Your task to perform on an android device: open device folders in google photos Image 0: 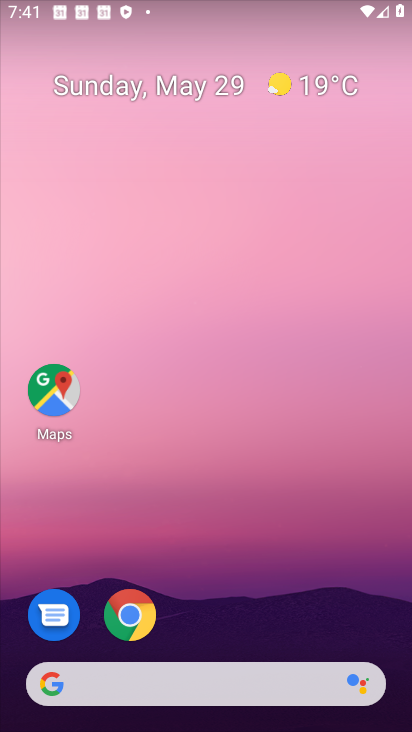
Step 0: drag from (134, 721) to (248, 0)
Your task to perform on an android device: open device folders in google photos Image 1: 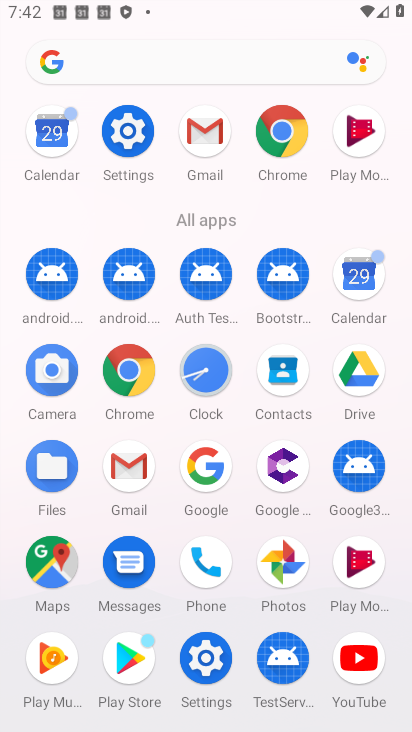
Step 1: click (292, 560)
Your task to perform on an android device: open device folders in google photos Image 2: 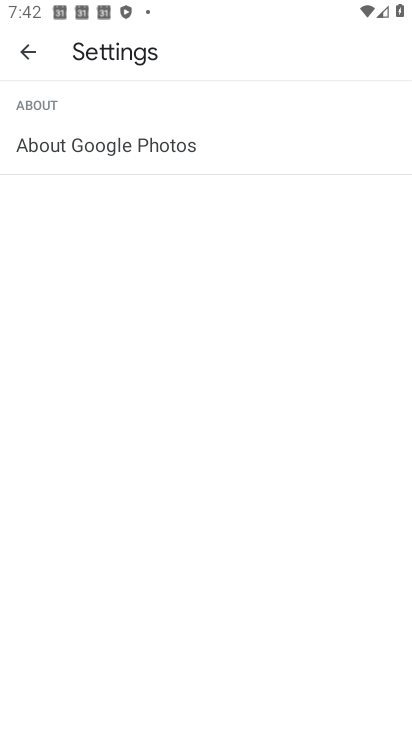
Step 2: click (30, 54)
Your task to perform on an android device: open device folders in google photos Image 3: 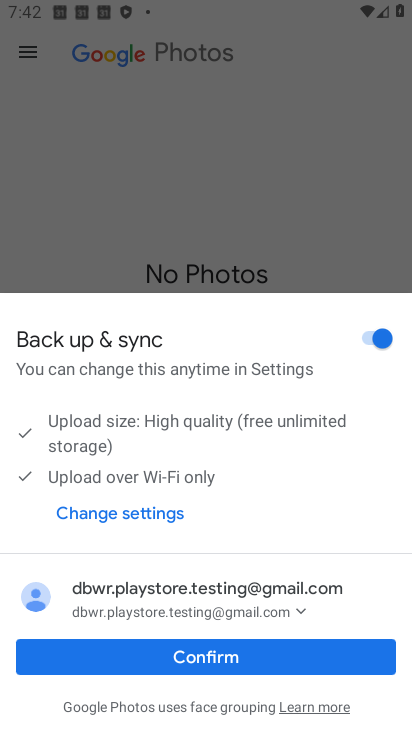
Step 3: click (210, 671)
Your task to perform on an android device: open device folders in google photos Image 4: 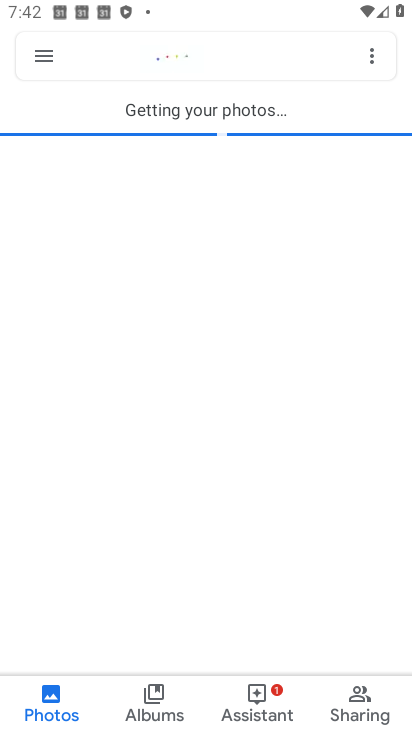
Step 4: click (45, 60)
Your task to perform on an android device: open device folders in google photos Image 5: 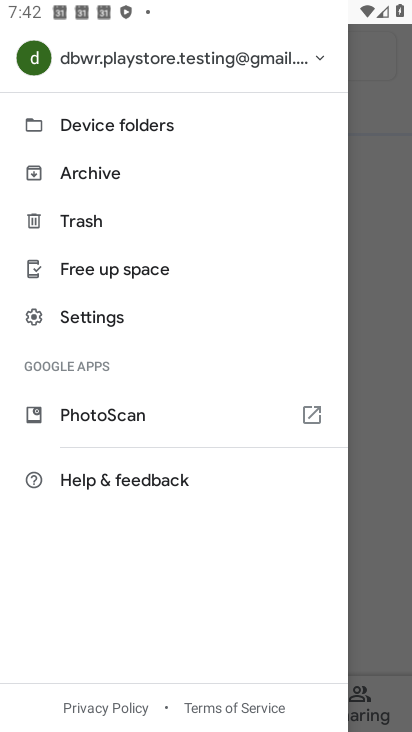
Step 5: click (111, 142)
Your task to perform on an android device: open device folders in google photos Image 6: 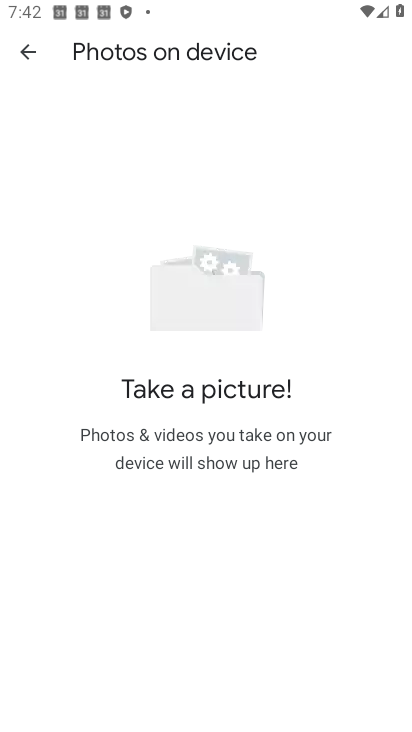
Step 6: task complete